Your task to perform on an android device: What's the weather? Image 0: 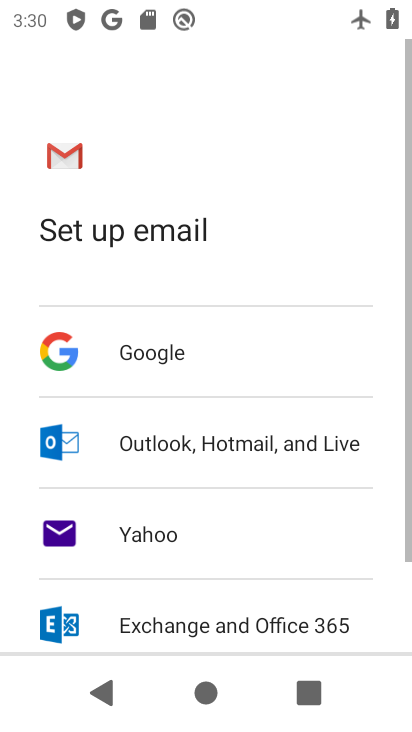
Step 0: drag from (320, 445) to (290, 200)
Your task to perform on an android device: What's the weather? Image 1: 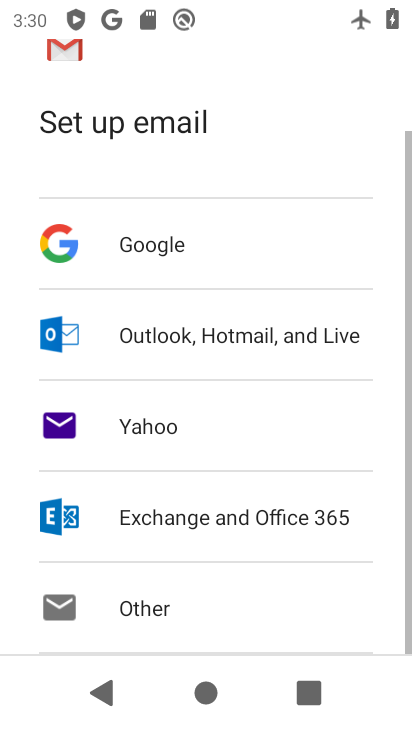
Step 1: press home button
Your task to perform on an android device: What's the weather? Image 2: 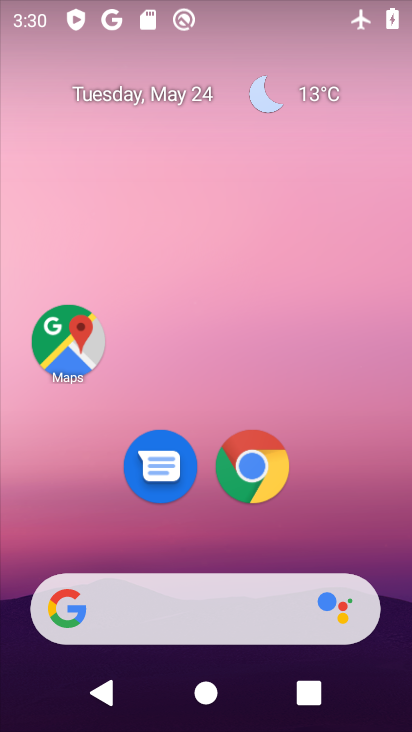
Step 2: click (319, 89)
Your task to perform on an android device: What's the weather? Image 3: 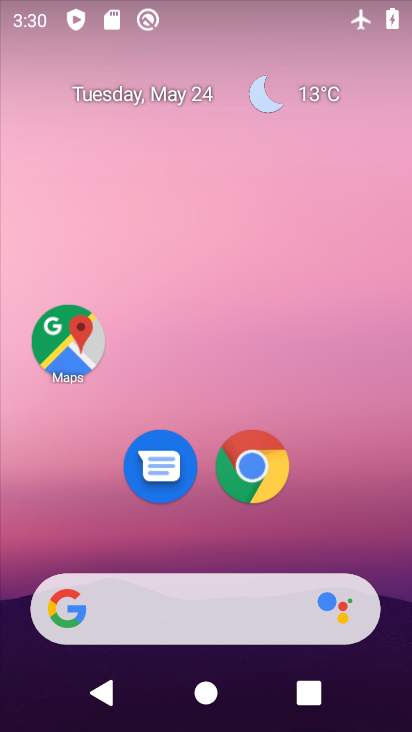
Step 3: click (312, 92)
Your task to perform on an android device: What's the weather? Image 4: 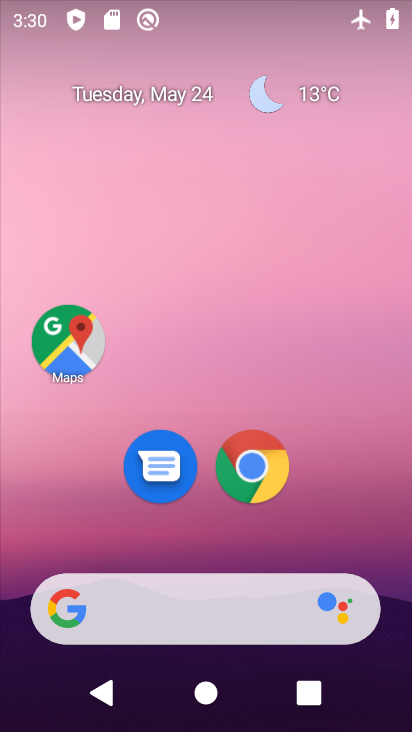
Step 4: click (309, 388)
Your task to perform on an android device: What's the weather? Image 5: 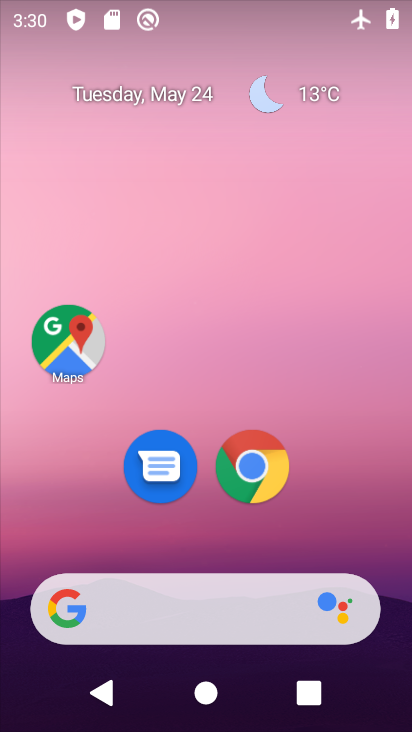
Step 5: drag from (343, 394) to (350, 308)
Your task to perform on an android device: What's the weather? Image 6: 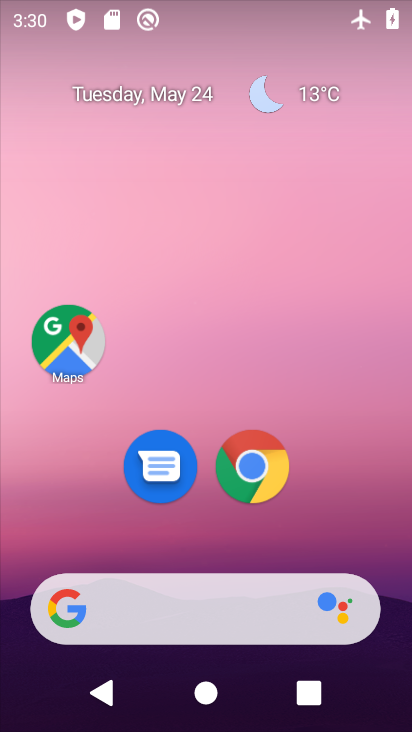
Step 6: click (324, 94)
Your task to perform on an android device: What's the weather? Image 7: 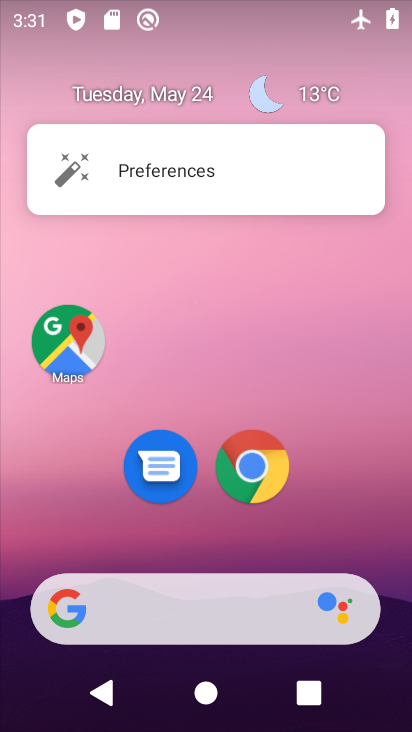
Step 7: click (324, 94)
Your task to perform on an android device: What's the weather? Image 8: 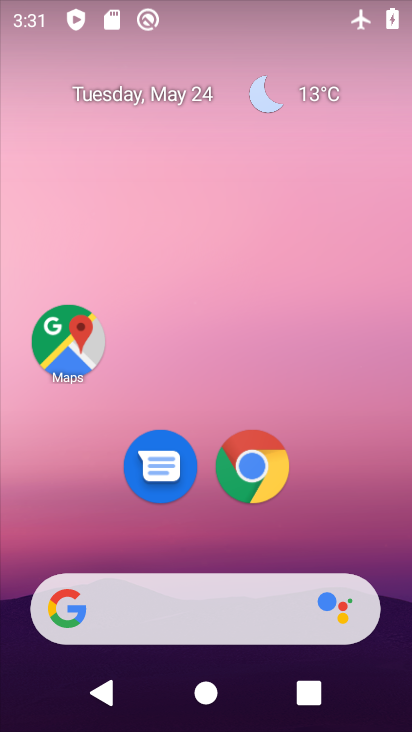
Step 8: click (324, 94)
Your task to perform on an android device: What's the weather? Image 9: 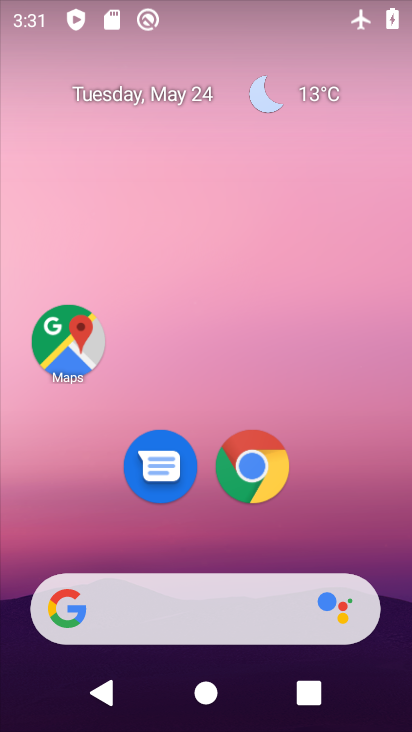
Step 9: click (318, 82)
Your task to perform on an android device: What's the weather? Image 10: 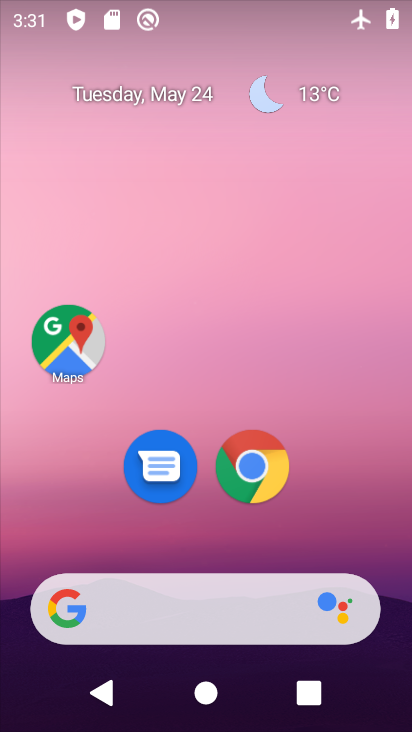
Step 10: click (316, 91)
Your task to perform on an android device: What's the weather? Image 11: 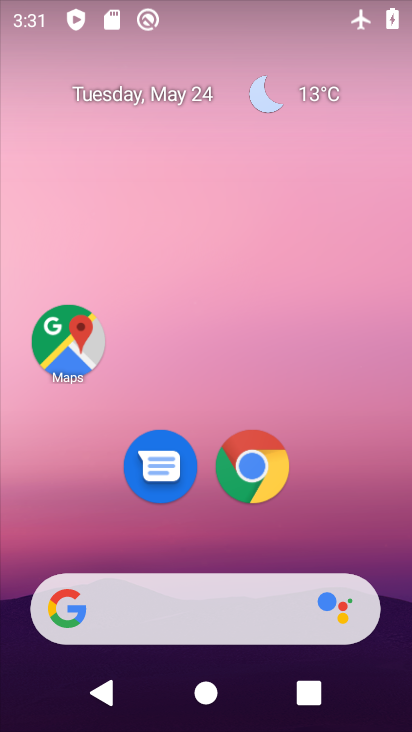
Step 11: click (253, 463)
Your task to perform on an android device: What's the weather? Image 12: 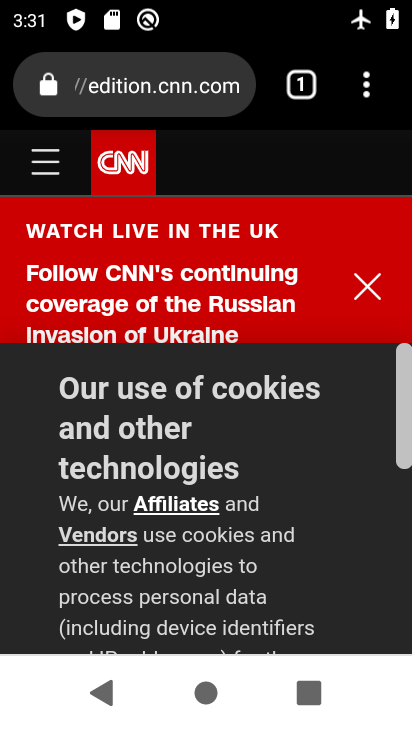
Step 12: click (193, 84)
Your task to perform on an android device: What's the weather? Image 13: 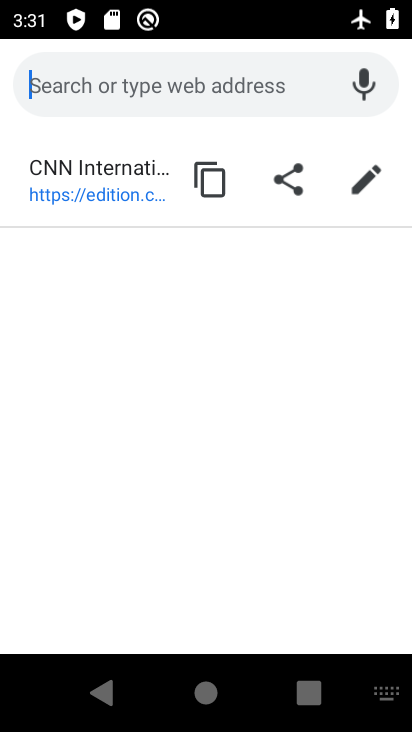
Step 13: type "weather"
Your task to perform on an android device: What's the weather? Image 14: 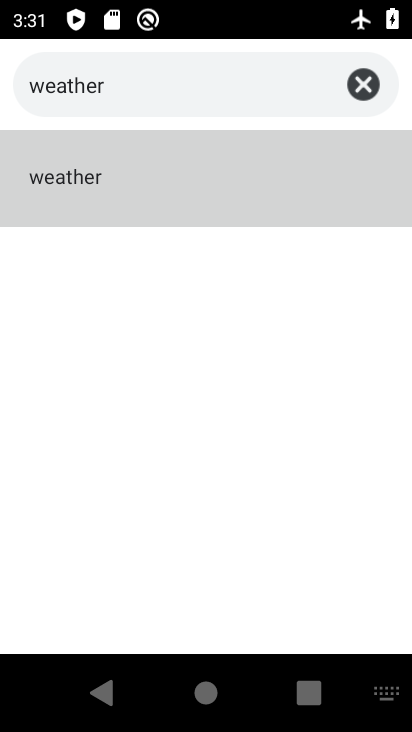
Step 14: click (26, 173)
Your task to perform on an android device: What's the weather? Image 15: 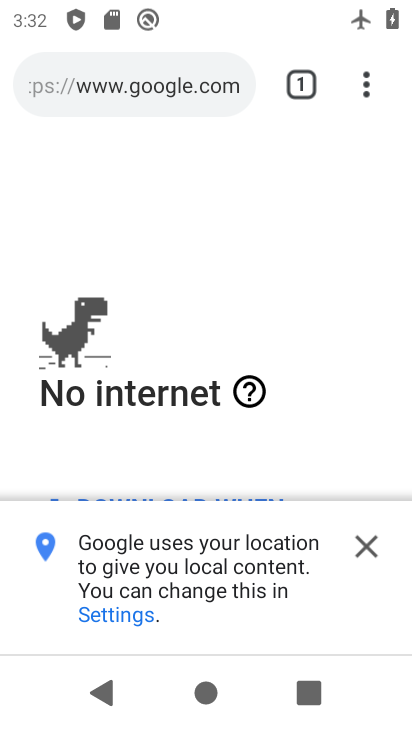
Step 15: task complete